Your task to perform on an android device: refresh tabs in the chrome app Image 0: 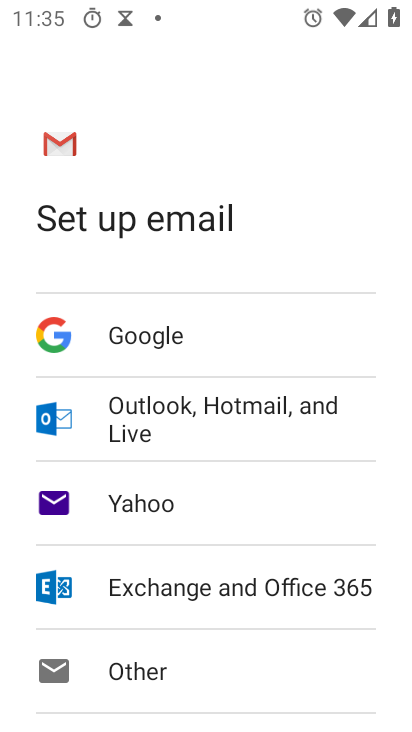
Step 0: press home button
Your task to perform on an android device: refresh tabs in the chrome app Image 1: 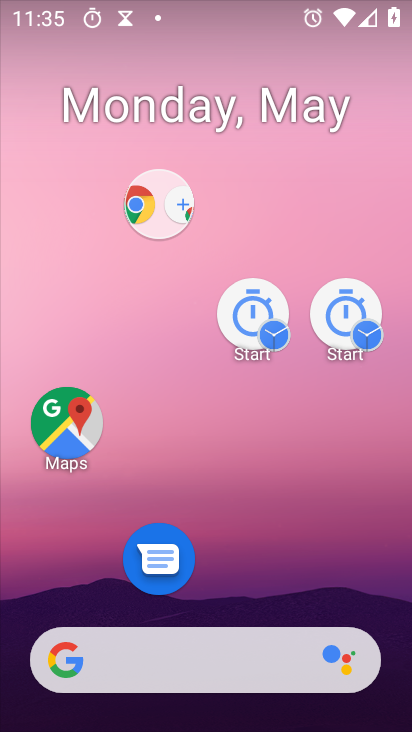
Step 1: drag from (220, 645) to (98, 162)
Your task to perform on an android device: refresh tabs in the chrome app Image 2: 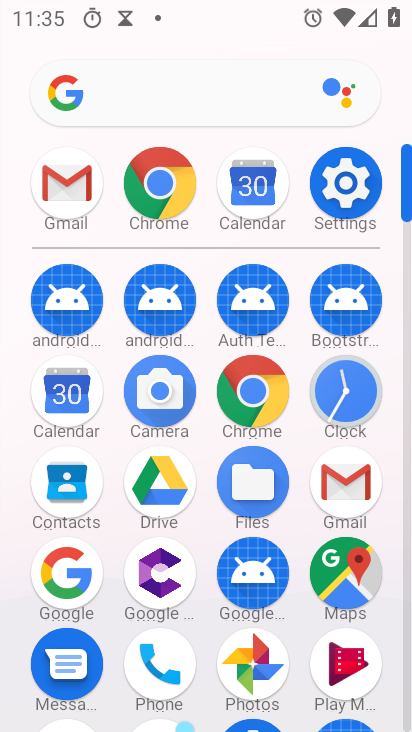
Step 2: click (144, 185)
Your task to perform on an android device: refresh tabs in the chrome app Image 3: 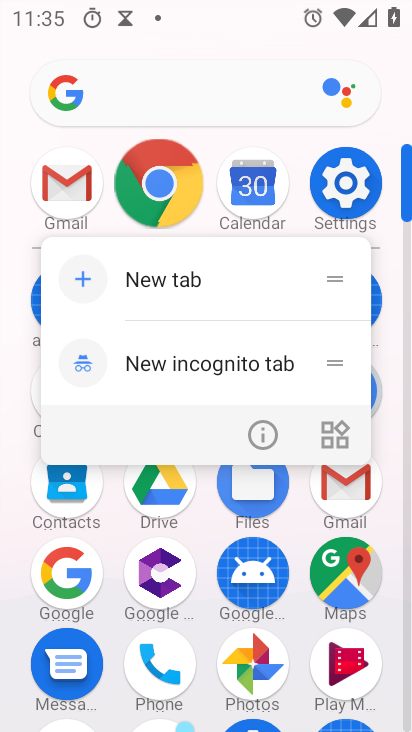
Step 3: click (151, 182)
Your task to perform on an android device: refresh tabs in the chrome app Image 4: 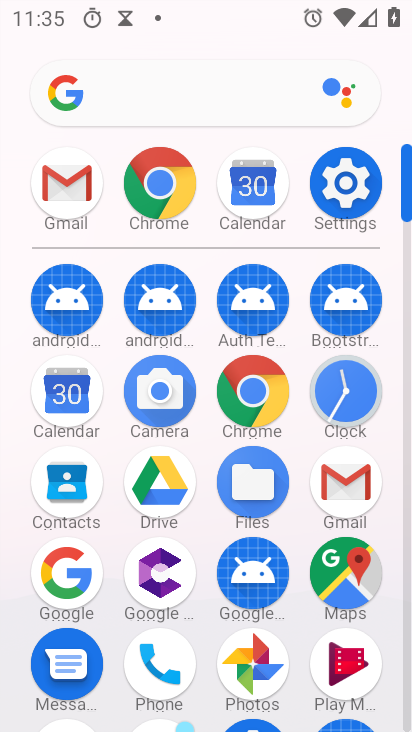
Step 4: click (155, 179)
Your task to perform on an android device: refresh tabs in the chrome app Image 5: 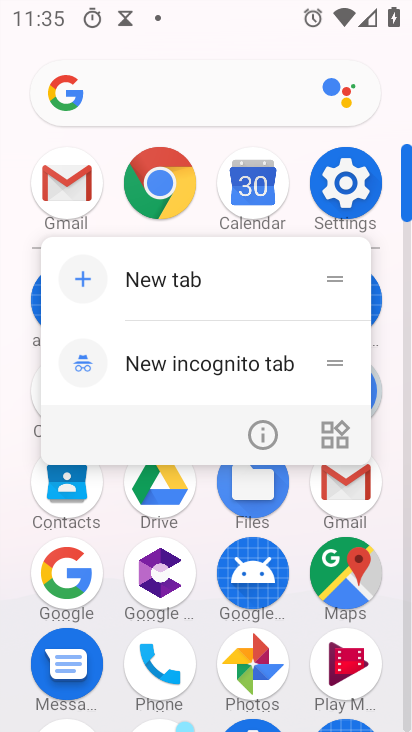
Step 5: click (155, 179)
Your task to perform on an android device: refresh tabs in the chrome app Image 6: 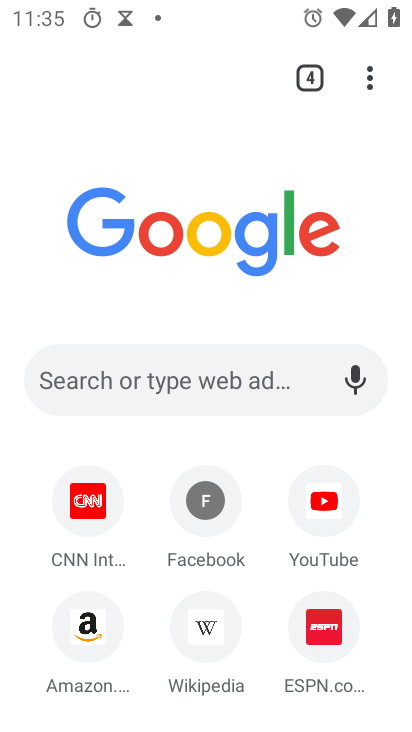
Step 6: click (370, 85)
Your task to perform on an android device: refresh tabs in the chrome app Image 7: 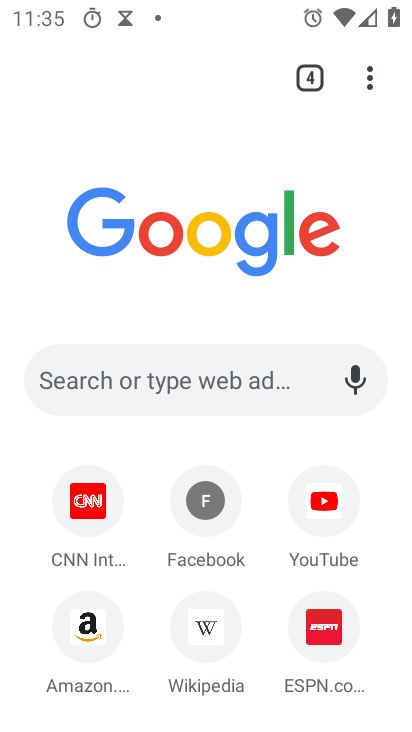
Step 7: click (372, 88)
Your task to perform on an android device: refresh tabs in the chrome app Image 8: 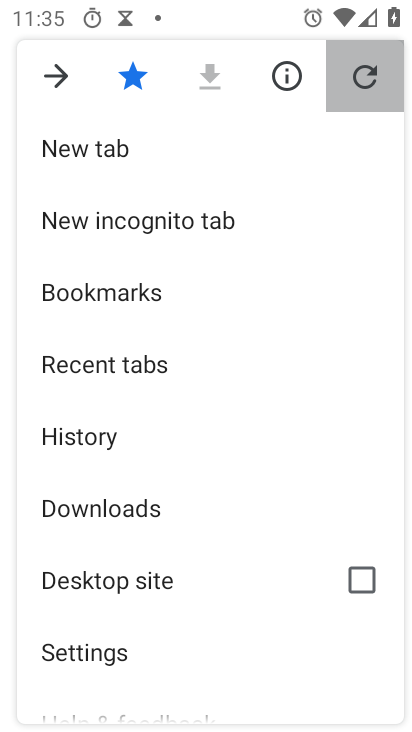
Step 8: click (371, 73)
Your task to perform on an android device: refresh tabs in the chrome app Image 9: 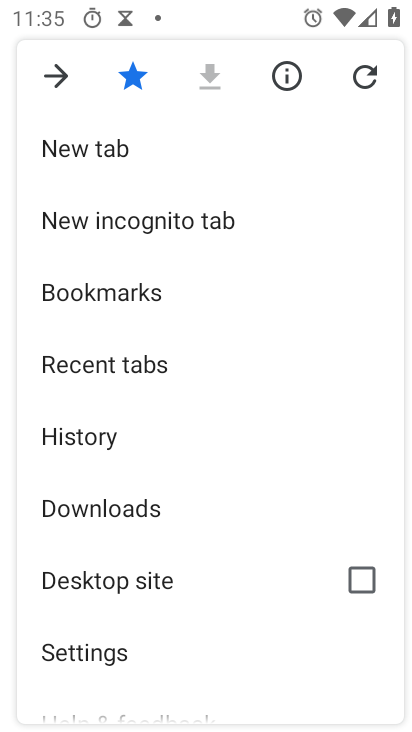
Step 9: task complete